Your task to perform on an android device: Open the map Image 0: 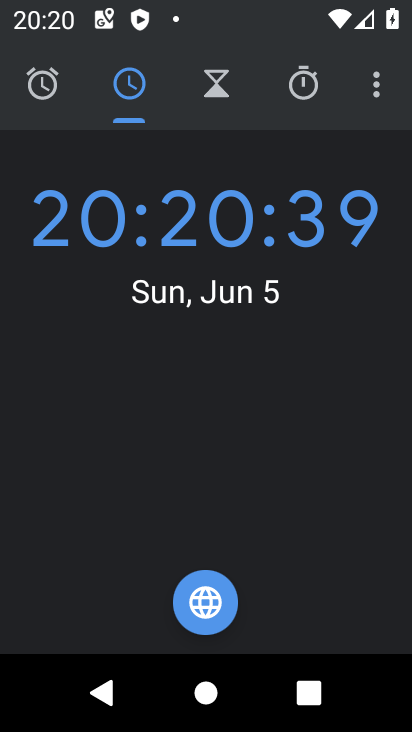
Step 0: drag from (260, 557) to (315, 131)
Your task to perform on an android device: Open the map Image 1: 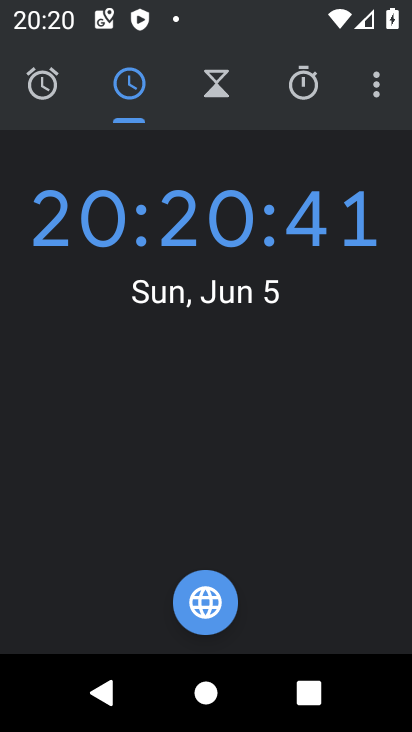
Step 1: press home button
Your task to perform on an android device: Open the map Image 2: 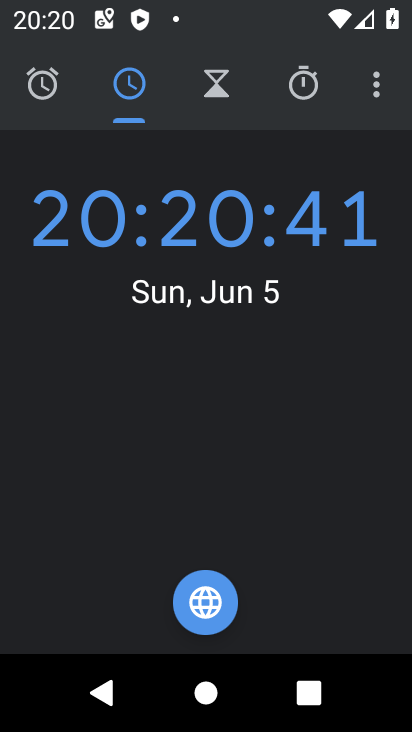
Step 2: drag from (172, 506) to (249, 9)
Your task to perform on an android device: Open the map Image 3: 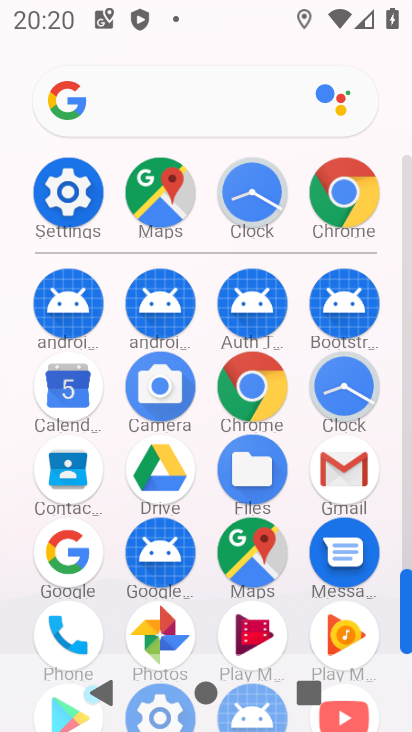
Step 3: click (161, 194)
Your task to perform on an android device: Open the map Image 4: 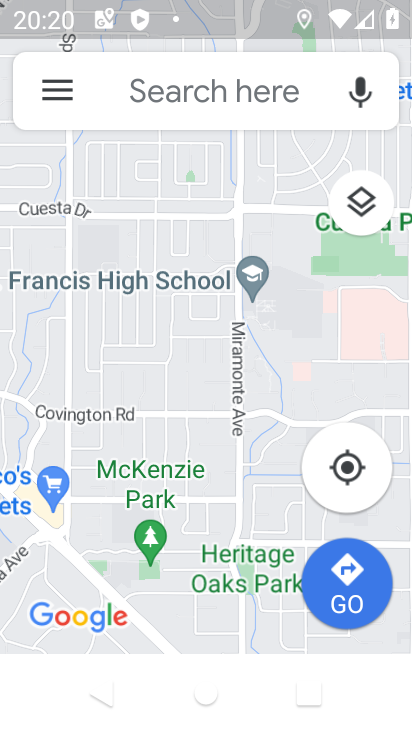
Step 4: task complete